Your task to perform on an android device: Show me productivity apps on the Play Store Image 0: 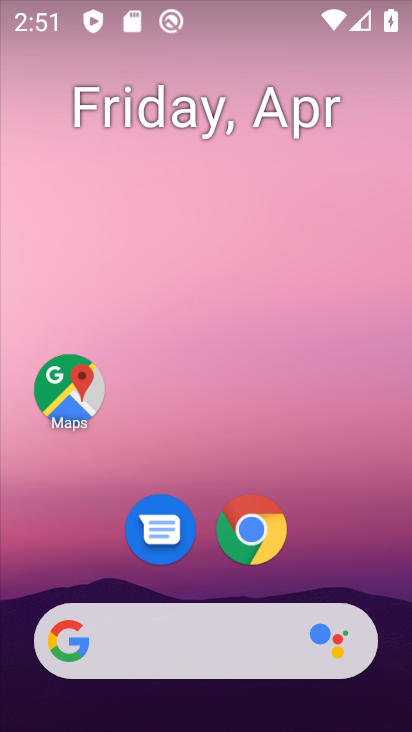
Step 0: drag from (254, 530) to (248, 30)
Your task to perform on an android device: Show me productivity apps on the Play Store Image 1: 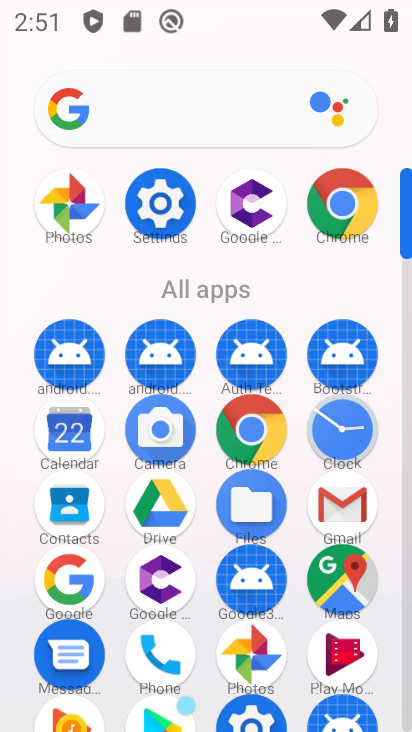
Step 1: drag from (304, 419) to (305, 244)
Your task to perform on an android device: Show me productivity apps on the Play Store Image 2: 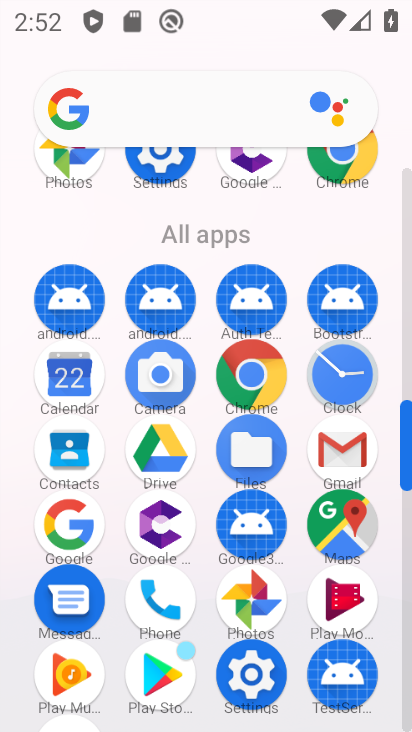
Step 2: drag from (253, 343) to (264, 229)
Your task to perform on an android device: Show me productivity apps on the Play Store Image 3: 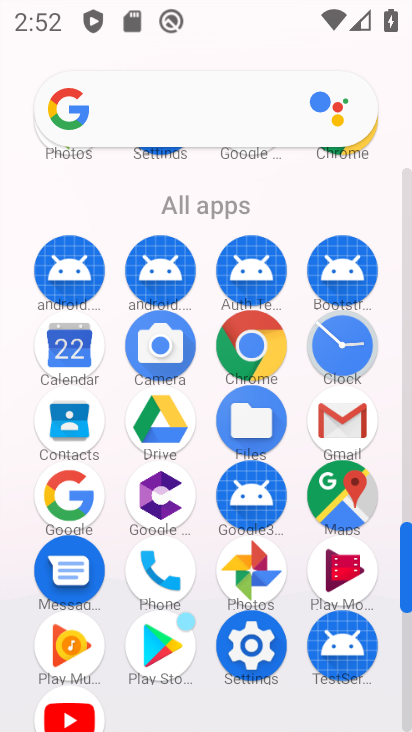
Step 3: click (154, 662)
Your task to perform on an android device: Show me productivity apps on the Play Store Image 4: 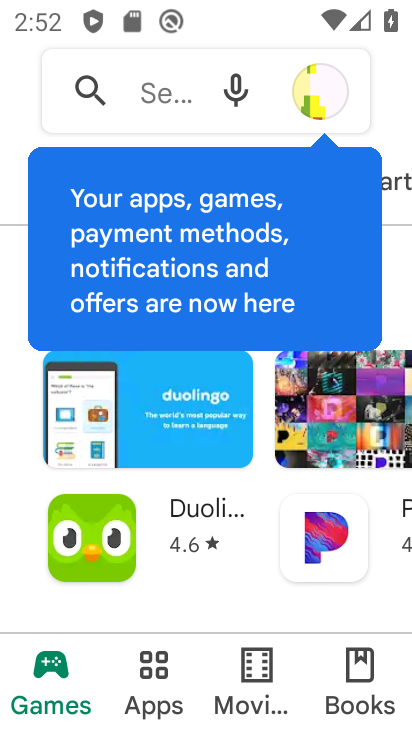
Step 4: click (178, 104)
Your task to perform on an android device: Show me productivity apps on the Play Store Image 5: 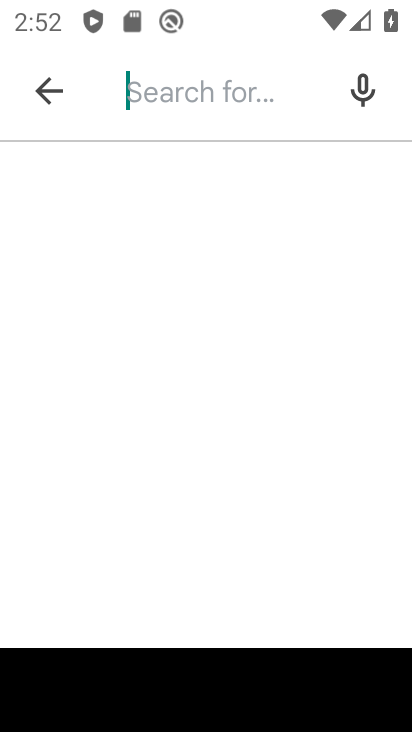
Step 5: type "productivity apps"
Your task to perform on an android device: Show me productivity apps on the Play Store Image 6: 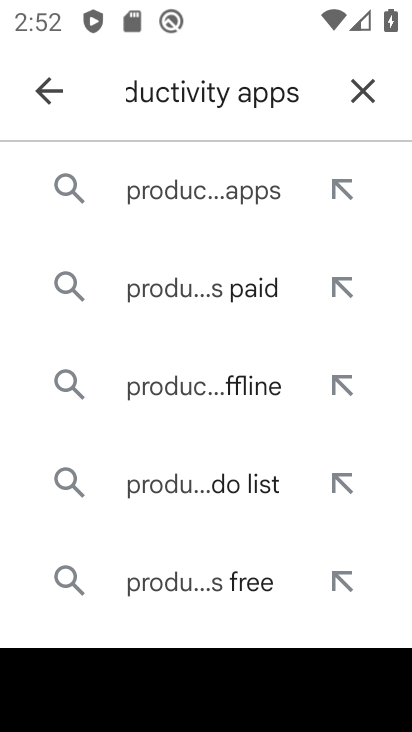
Step 6: click (227, 194)
Your task to perform on an android device: Show me productivity apps on the Play Store Image 7: 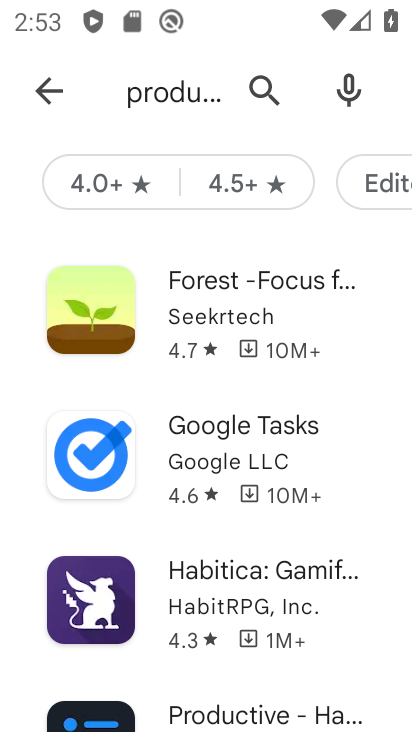
Step 7: task complete